Your task to perform on an android device: turn on location history Image 0: 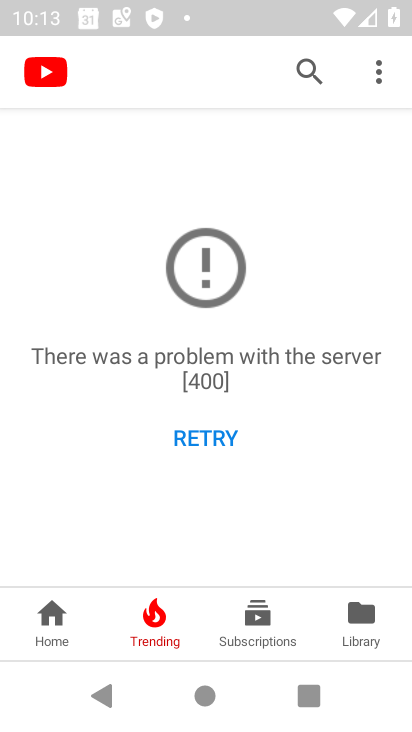
Step 0: press home button
Your task to perform on an android device: turn on location history Image 1: 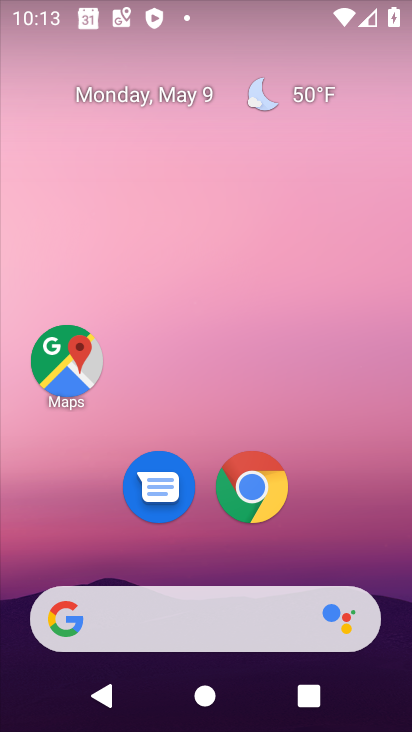
Step 1: drag from (56, 552) to (369, 28)
Your task to perform on an android device: turn on location history Image 2: 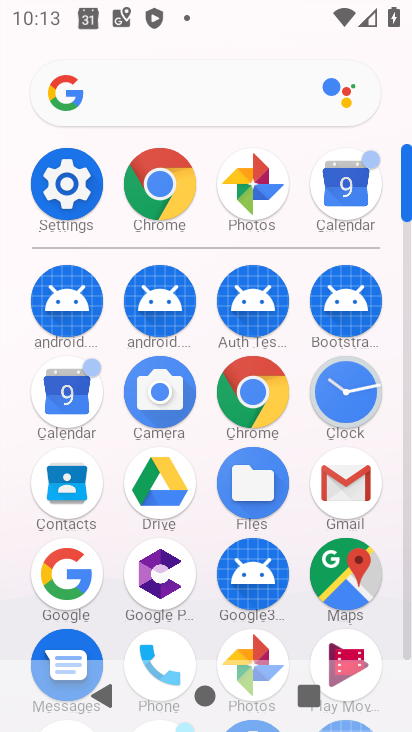
Step 2: click (92, 184)
Your task to perform on an android device: turn on location history Image 3: 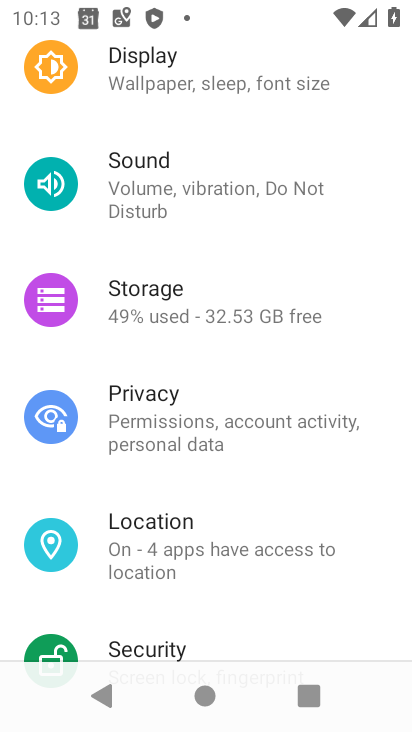
Step 3: click (125, 517)
Your task to perform on an android device: turn on location history Image 4: 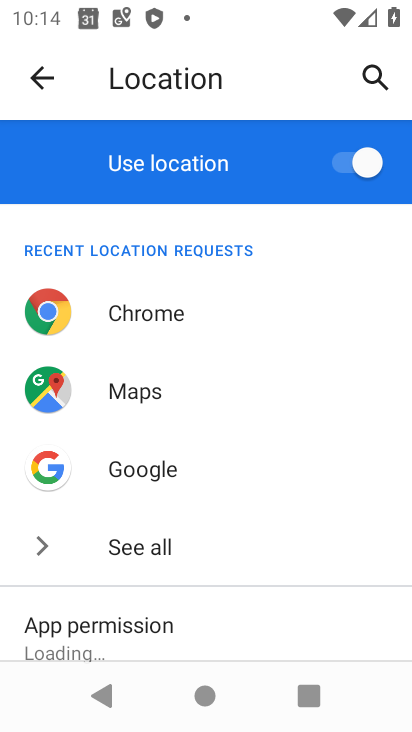
Step 4: drag from (18, 524) to (283, 187)
Your task to perform on an android device: turn on location history Image 5: 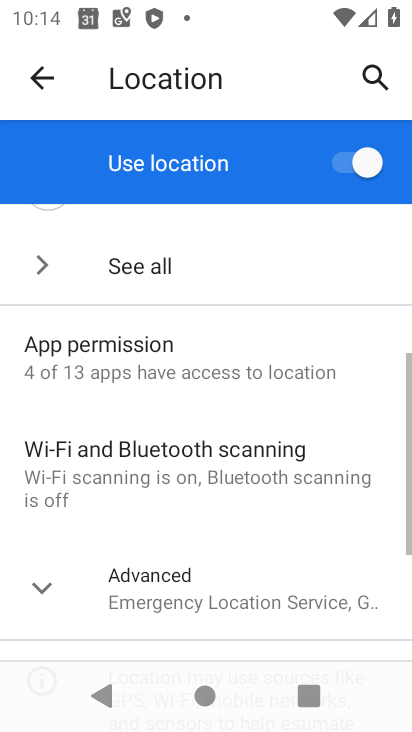
Step 5: click (261, 599)
Your task to perform on an android device: turn on location history Image 6: 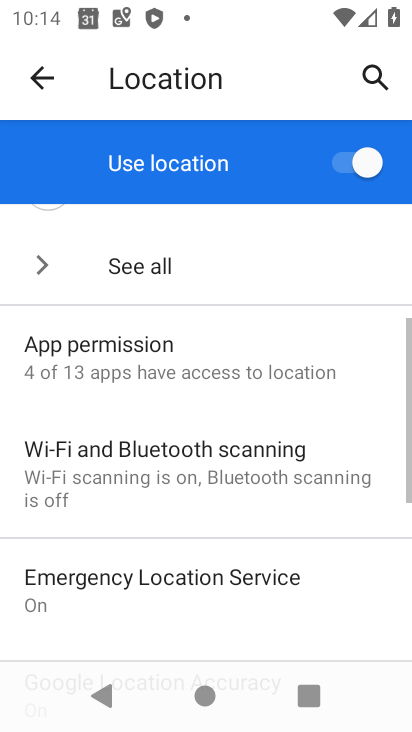
Step 6: drag from (254, 600) to (400, 156)
Your task to perform on an android device: turn on location history Image 7: 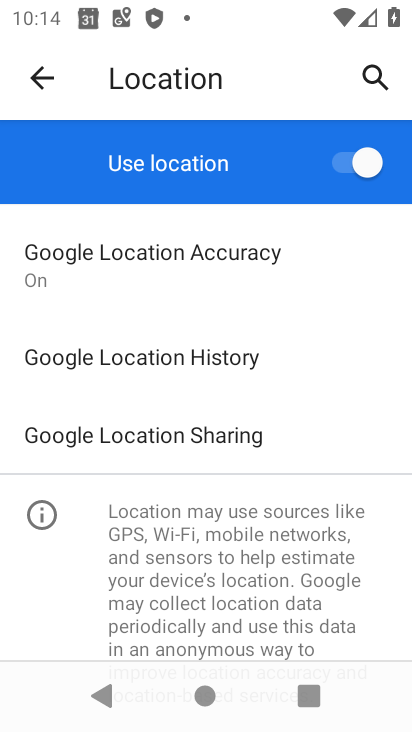
Step 7: click (185, 357)
Your task to perform on an android device: turn on location history Image 8: 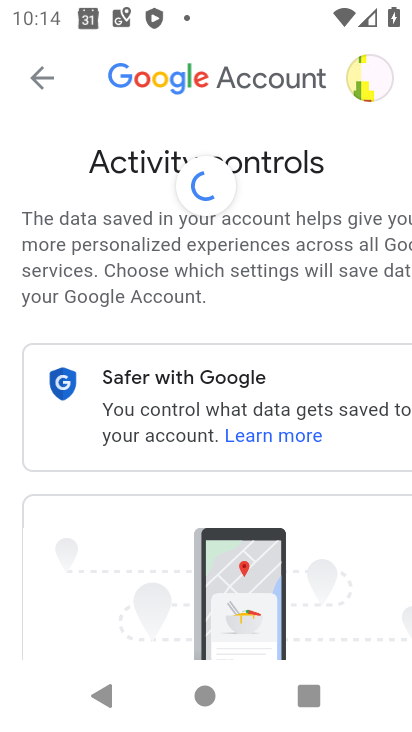
Step 8: drag from (148, 618) to (322, 154)
Your task to perform on an android device: turn on location history Image 9: 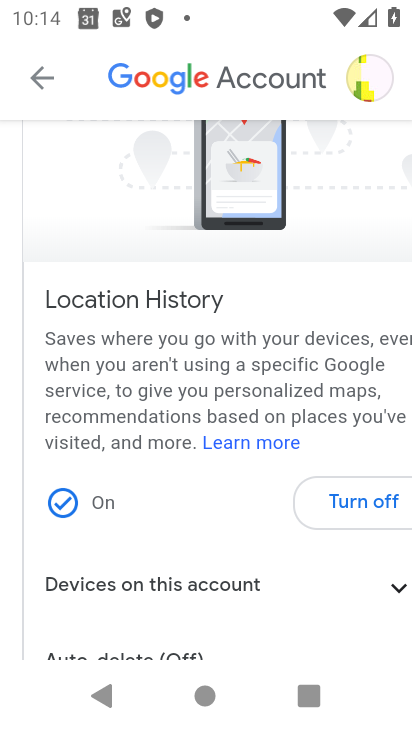
Step 9: click (353, 515)
Your task to perform on an android device: turn on location history Image 10: 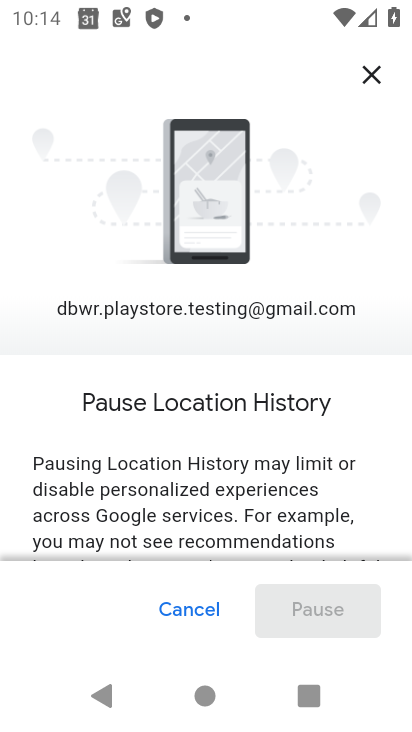
Step 10: drag from (210, 543) to (392, 91)
Your task to perform on an android device: turn on location history Image 11: 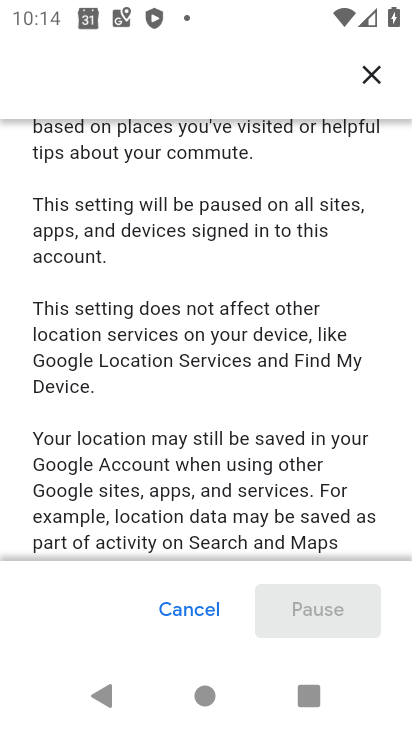
Step 11: drag from (110, 512) to (352, 47)
Your task to perform on an android device: turn on location history Image 12: 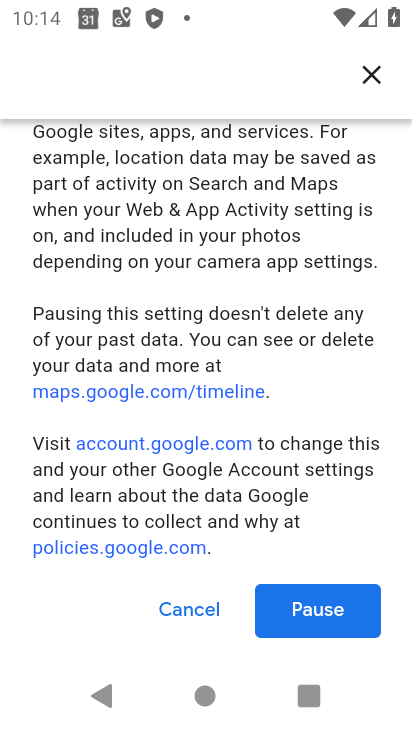
Step 12: click (268, 613)
Your task to perform on an android device: turn on location history Image 13: 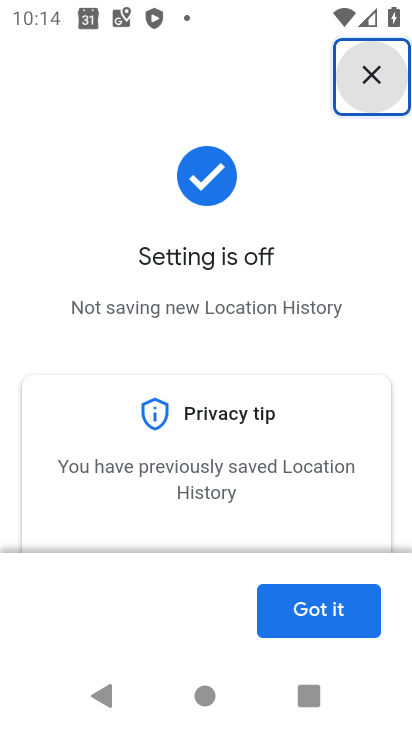
Step 13: click (339, 615)
Your task to perform on an android device: turn on location history Image 14: 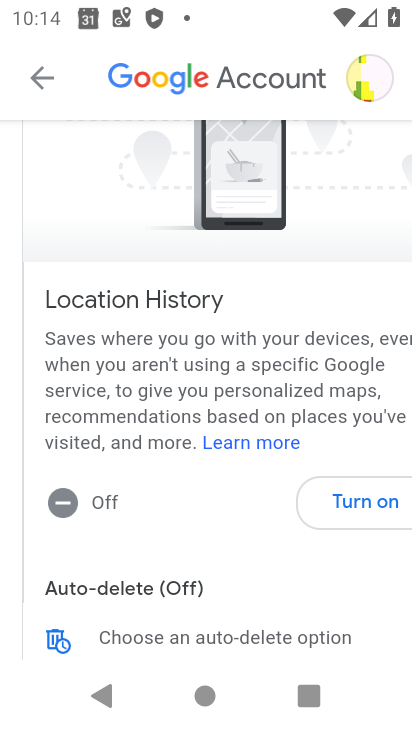
Step 14: task complete